Your task to perform on an android device: install app "Google Play Music" Image 0: 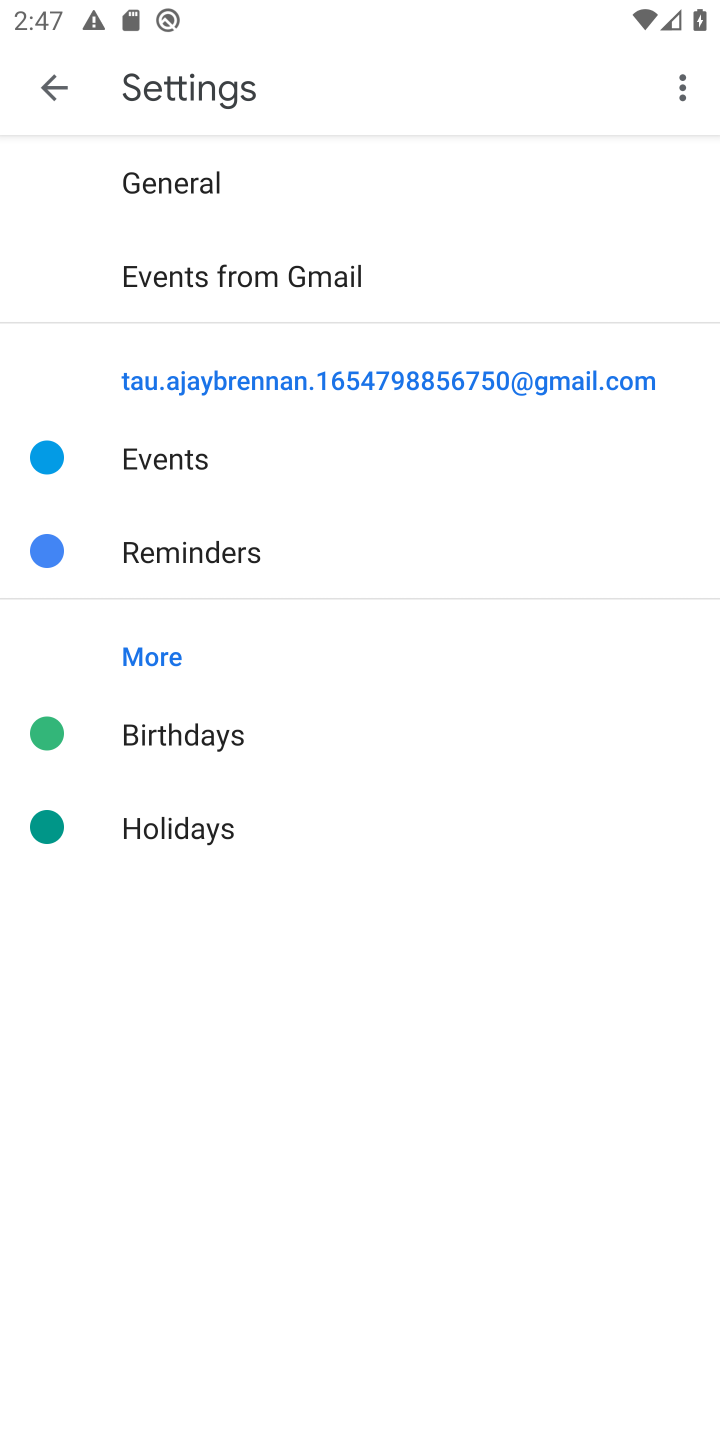
Step 0: press home button
Your task to perform on an android device: install app "Google Play Music" Image 1: 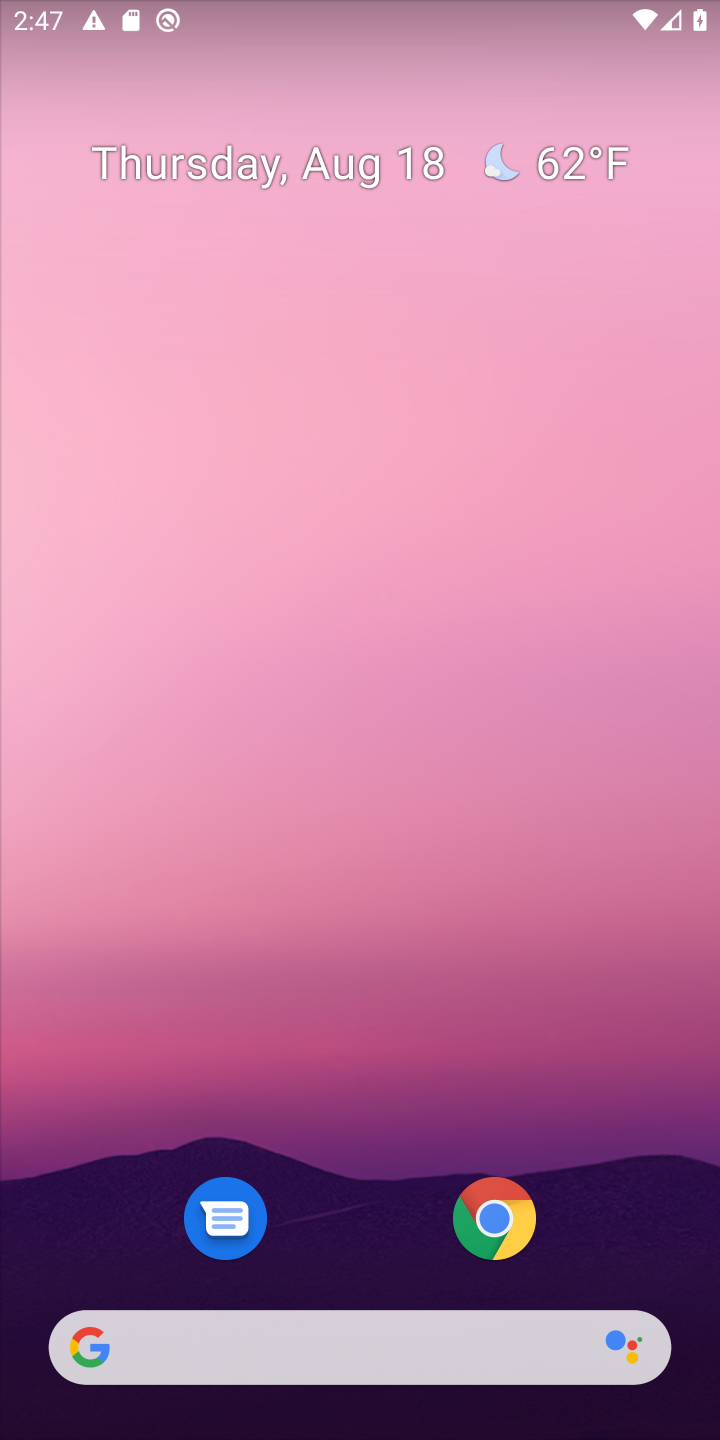
Step 1: drag from (402, 1045) to (415, 358)
Your task to perform on an android device: install app "Google Play Music" Image 2: 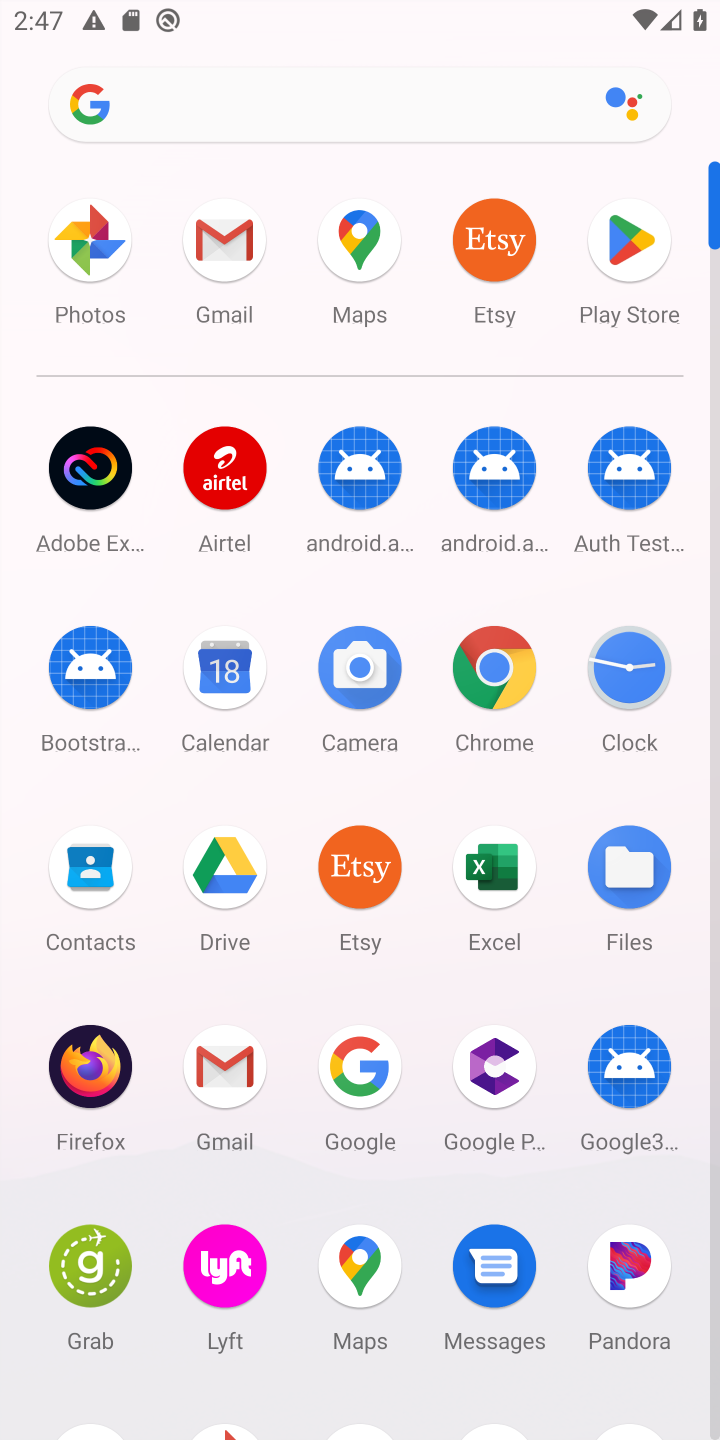
Step 2: click (613, 236)
Your task to perform on an android device: install app "Google Play Music" Image 3: 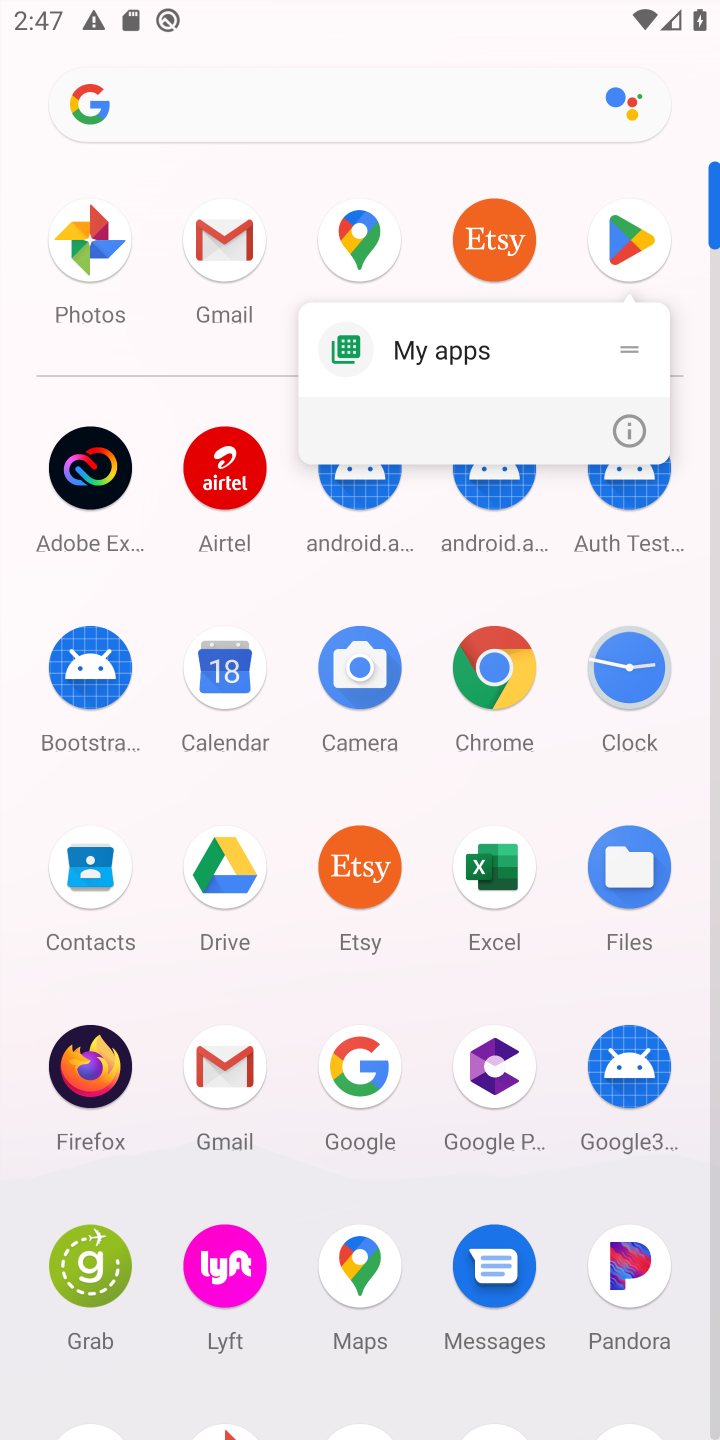
Step 3: click (615, 236)
Your task to perform on an android device: install app "Google Play Music" Image 4: 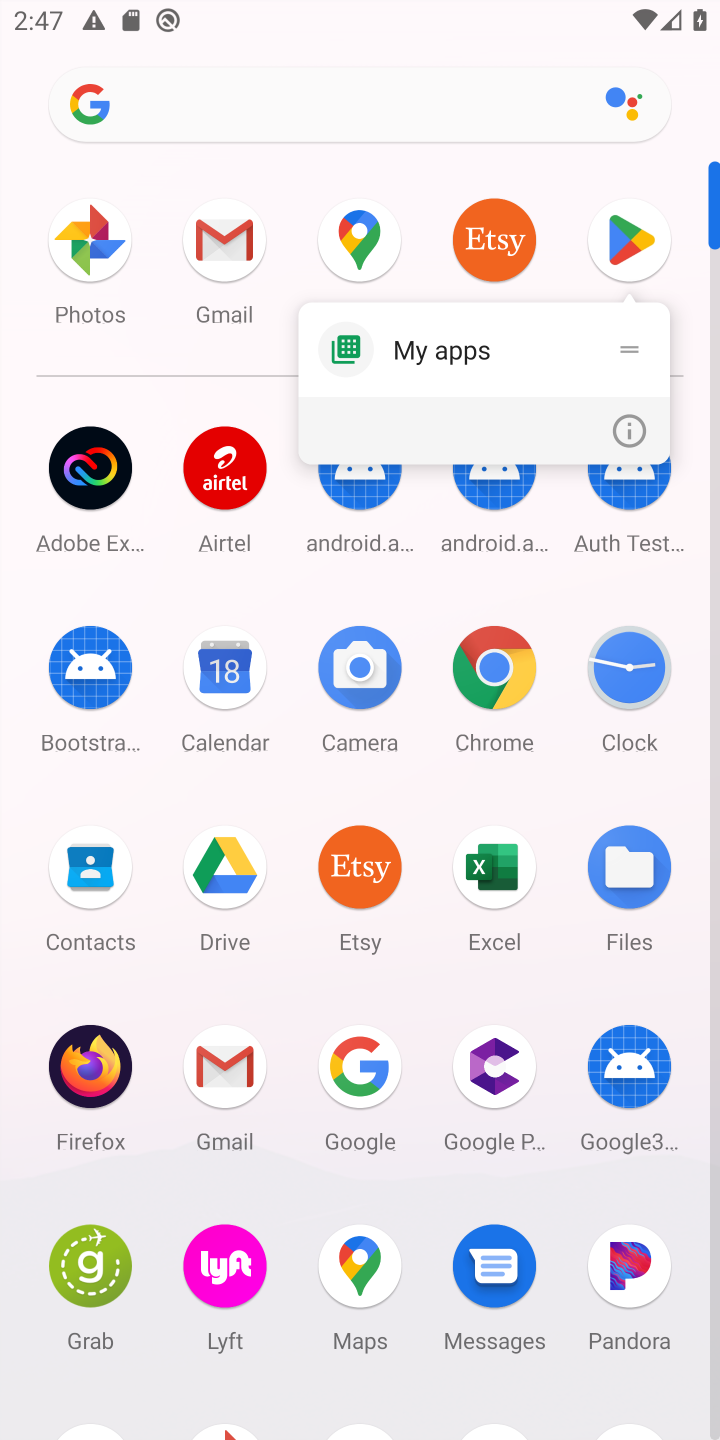
Step 4: click (615, 236)
Your task to perform on an android device: install app "Google Play Music" Image 5: 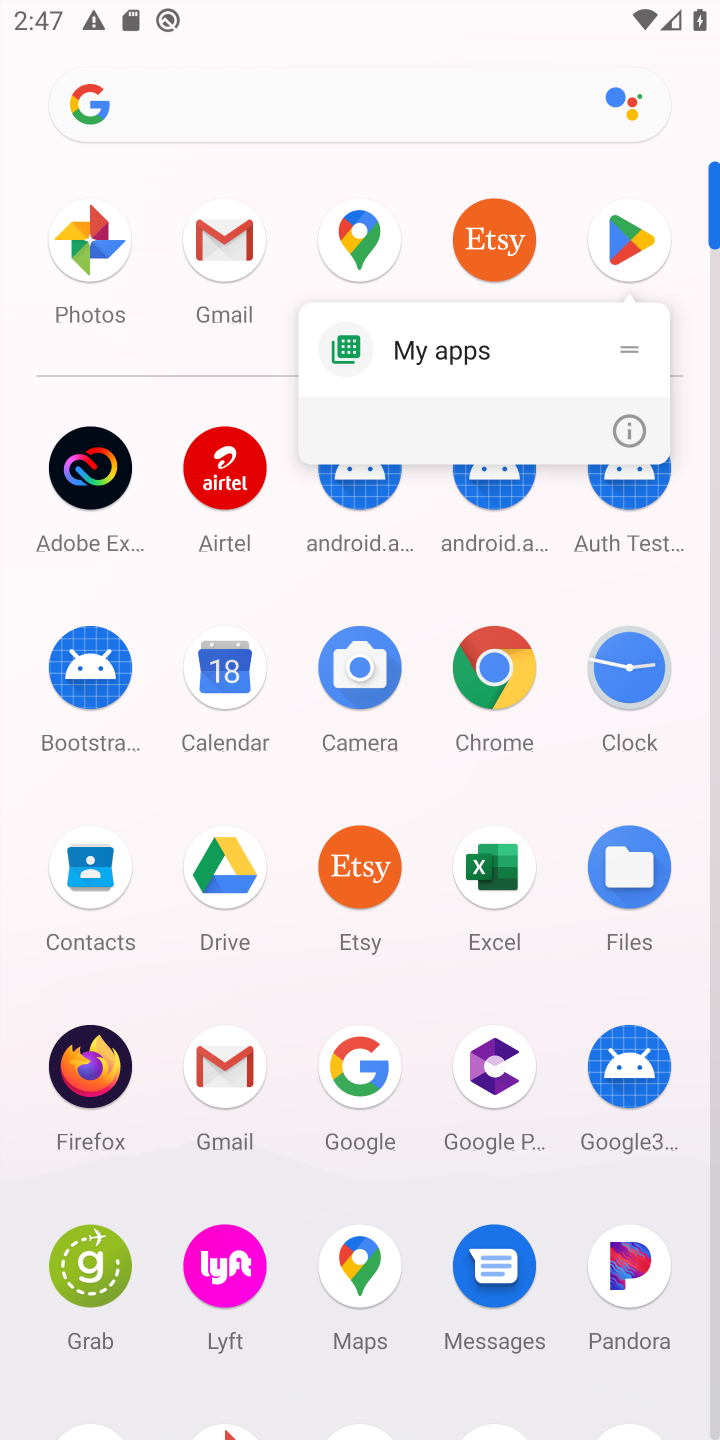
Step 5: click (637, 243)
Your task to perform on an android device: install app "Google Play Music" Image 6: 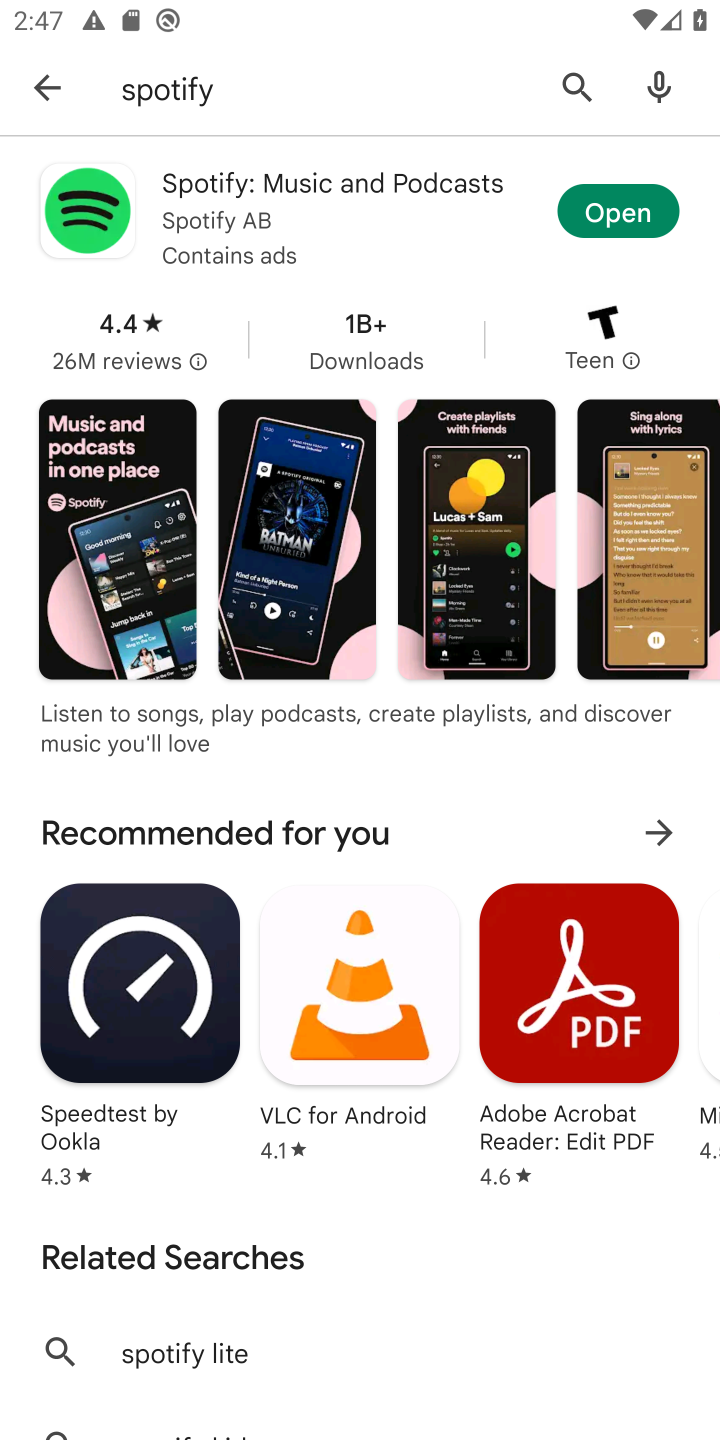
Step 6: click (576, 93)
Your task to perform on an android device: install app "Google Play Music" Image 7: 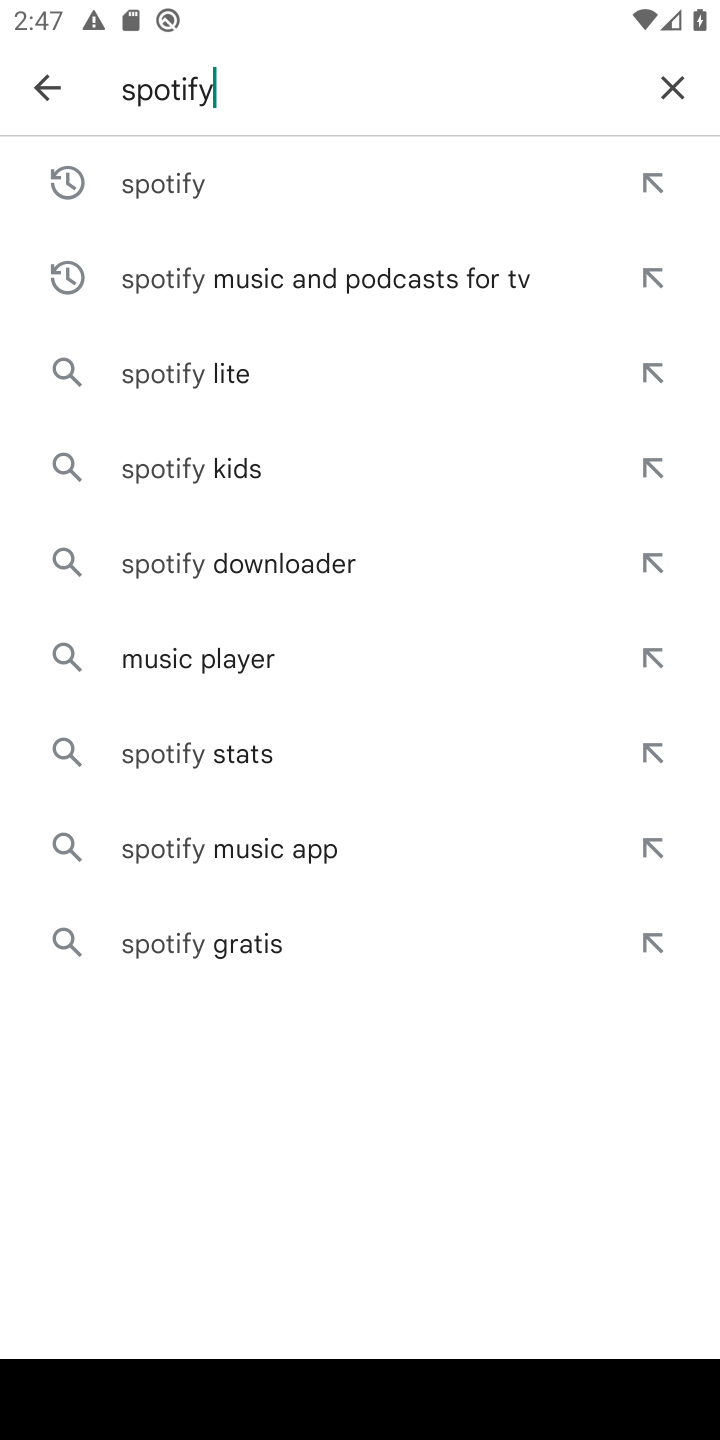
Step 7: click (660, 70)
Your task to perform on an android device: install app "Google Play Music" Image 8: 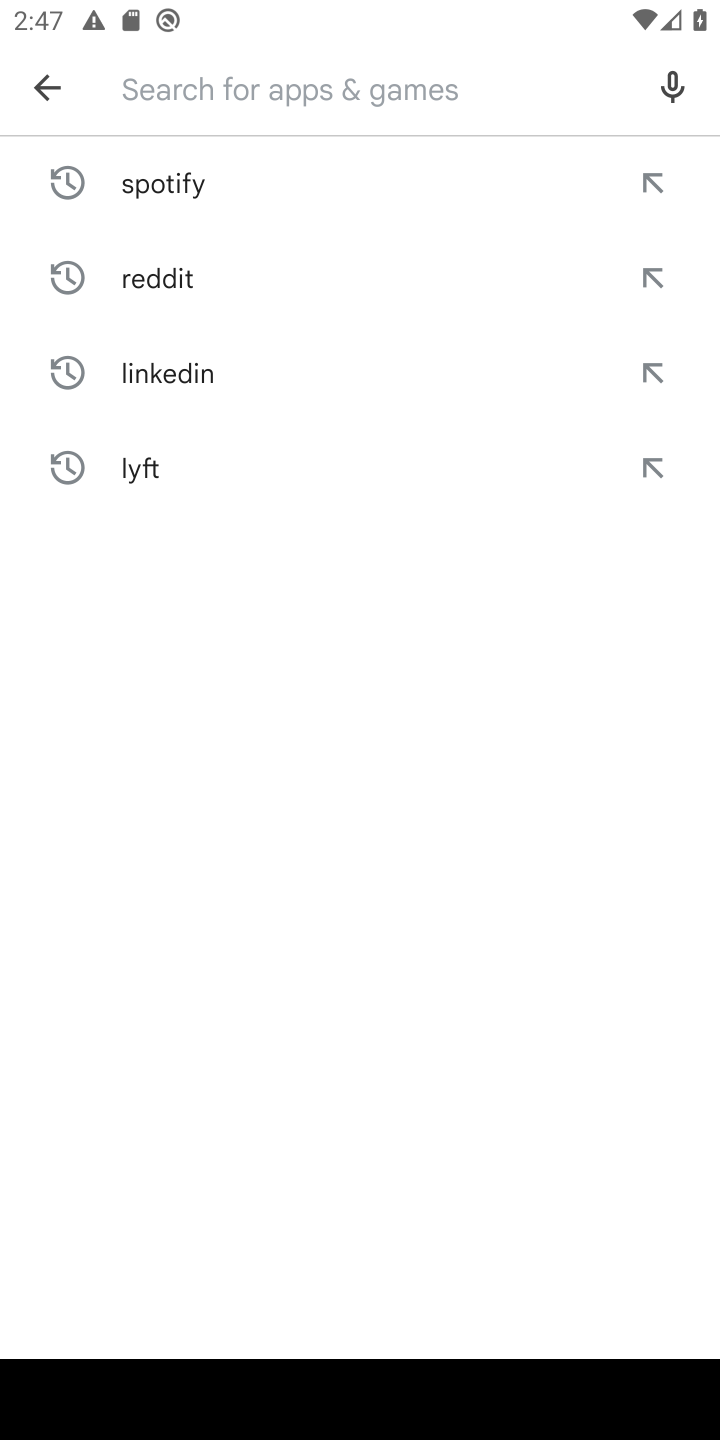
Step 8: type "Google Play Music"
Your task to perform on an android device: install app "Google Play Music" Image 9: 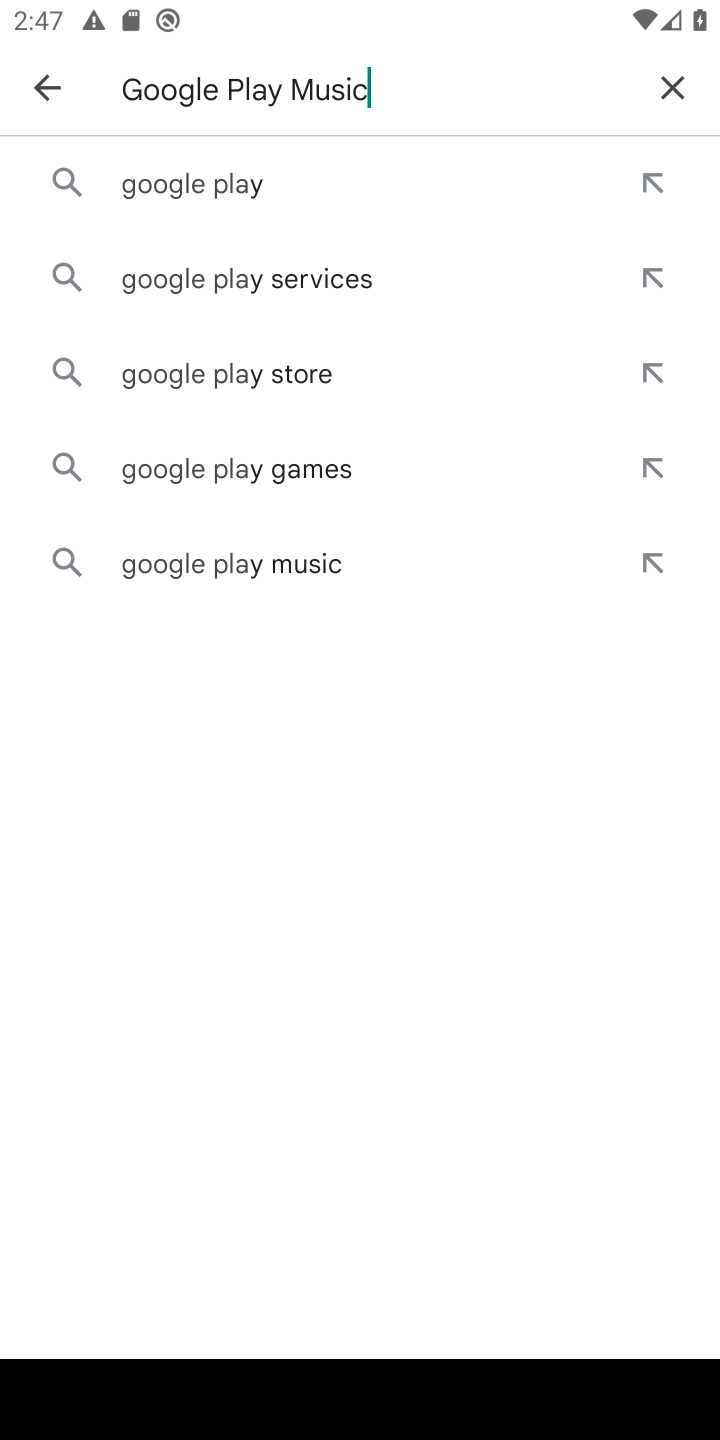
Step 9: type ""
Your task to perform on an android device: install app "Google Play Music" Image 10: 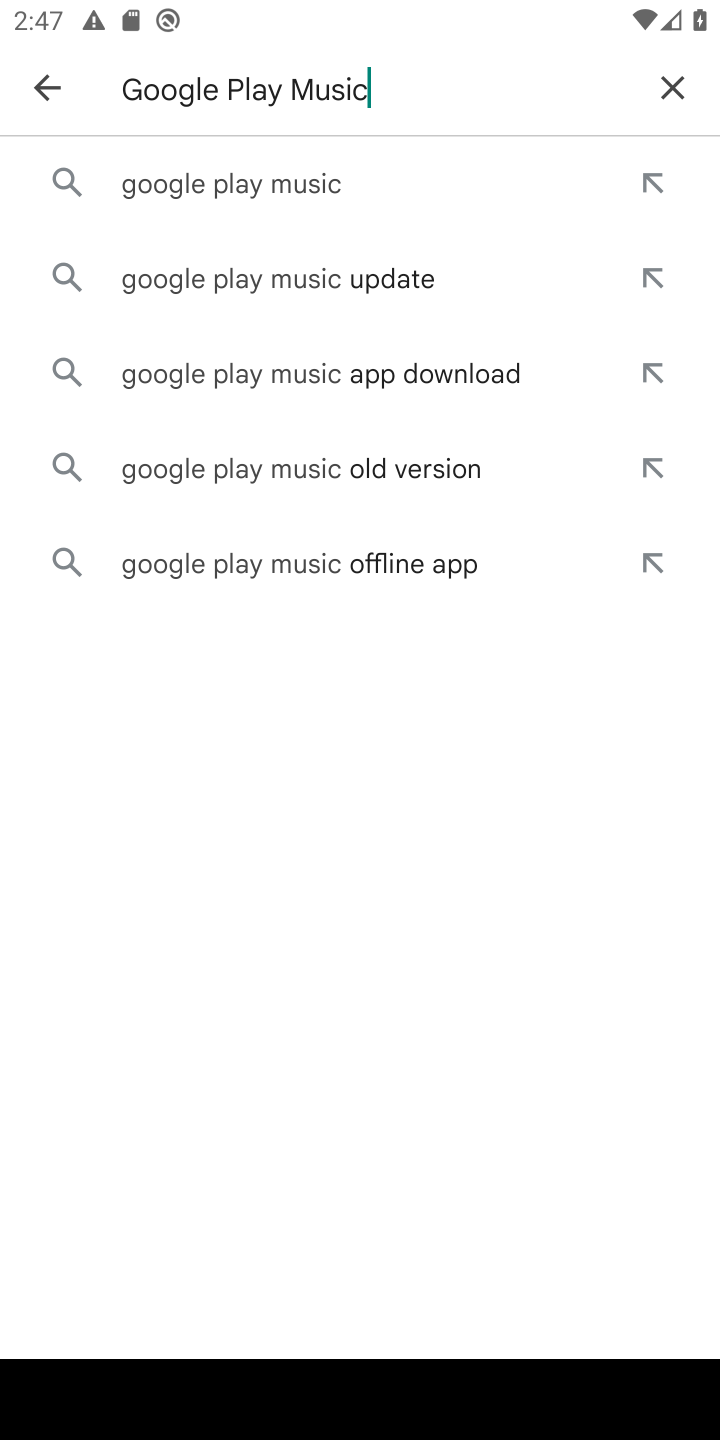
Step 10: click (239, 185)
Your task to perform on an android device: install app "Google Play Music" Image 11: 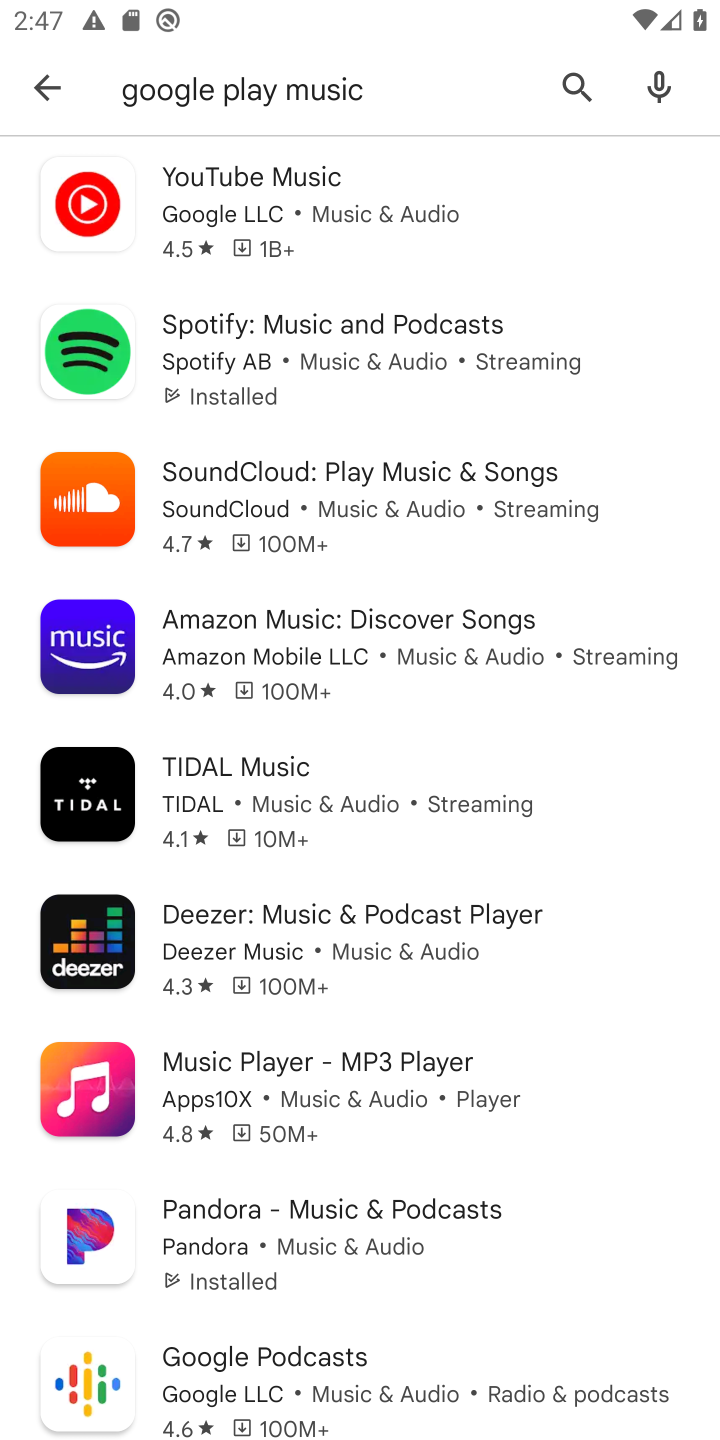
Step 11: task complete